Your task to perform on an android device: Go to sound settings Image 0: 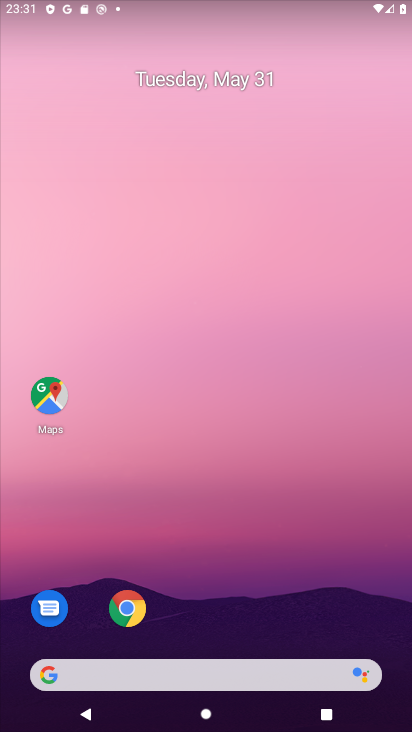
Step 0: press home button
Your task to perform on an android device: Go to sound settings Image 1: 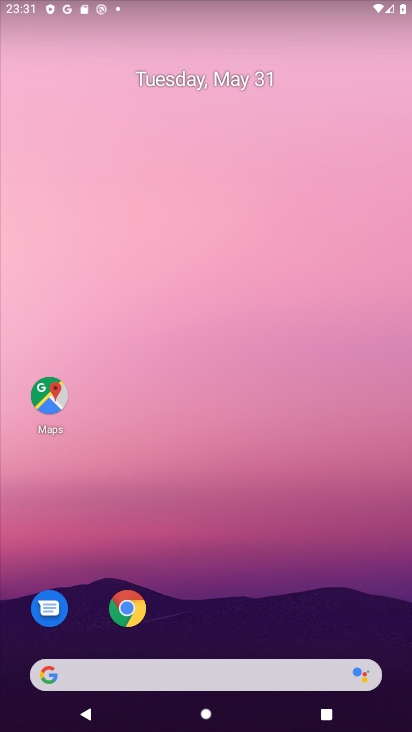
Step 1: drag from (247, 622) to (321, 23)
Your task to perform on an android device: Go to sound settings Image 2: 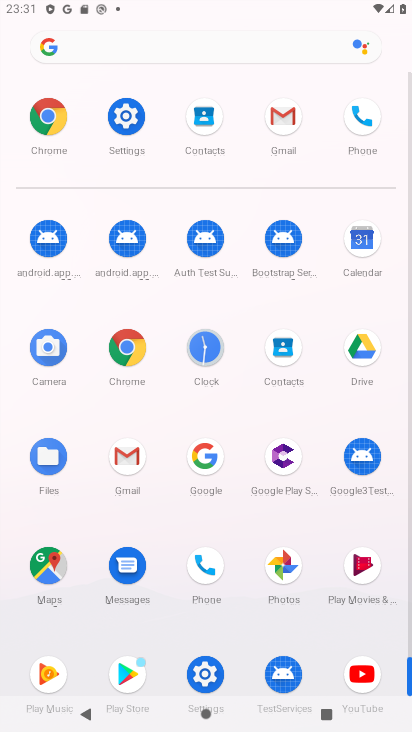
Step 2: click (109, 121)
Your task to perform on an android device: Go to sound settings Image 3: 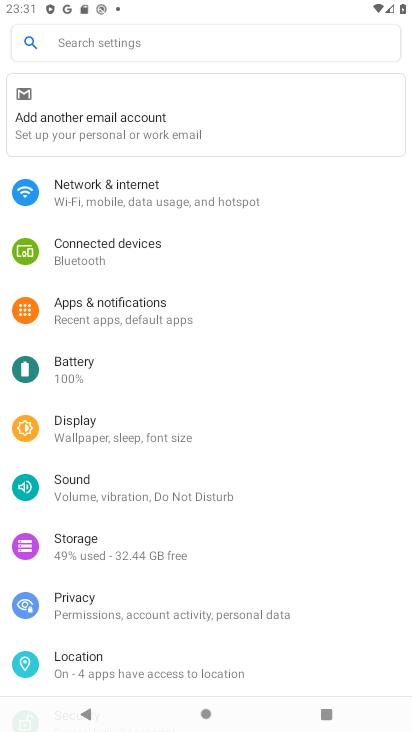
Step 3: click (76, 489)
Your task to perform on an android device: Go to sound settings Image 4: 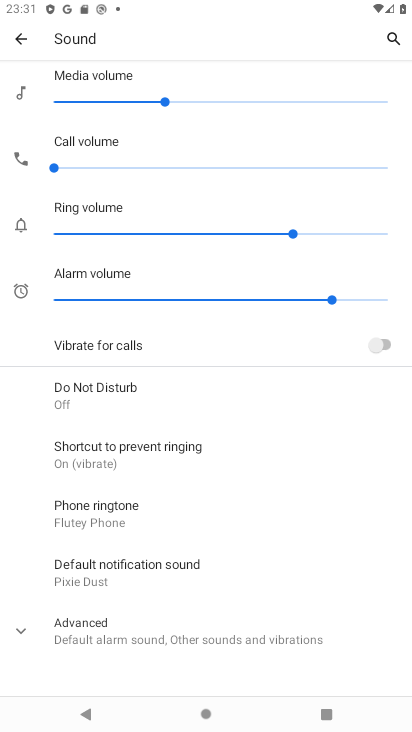
Step 4: task complete